Your task to perform on an android device: Open internet settings Image 0: 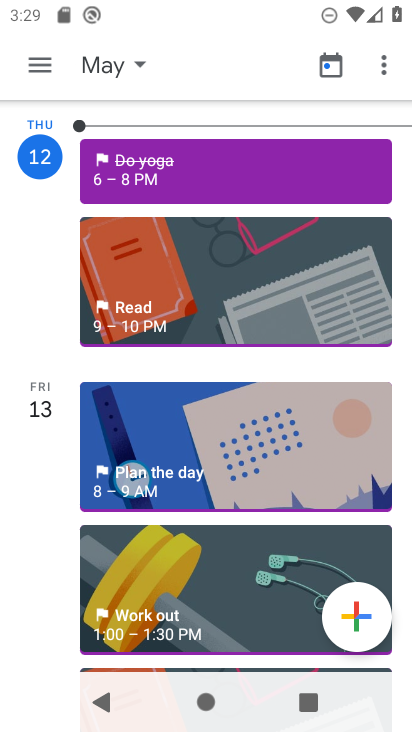
Step 0: press home button
Your task to perform on an android device: Open internet settings Image 1: 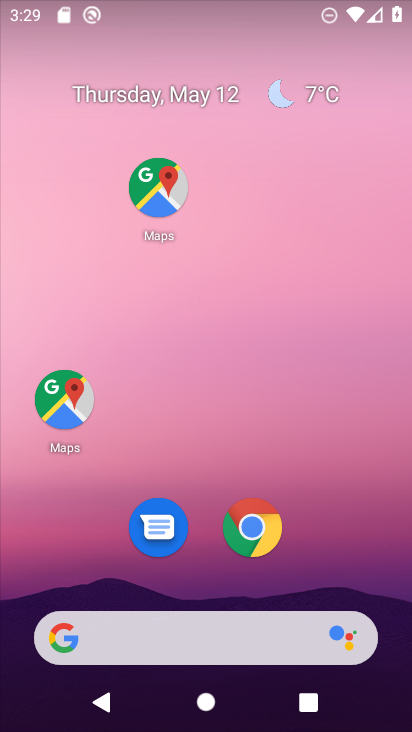
Step 1: drag from (213, 591) to (272, 50)
Your task to perform on an android device: Open internet settings Image 2: 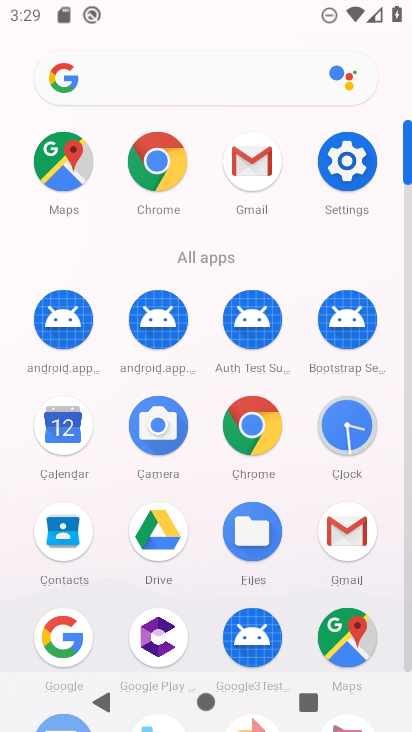
Step 2: click (343, 169)
Your task to perform on an android device: Open internet settings Image 3: 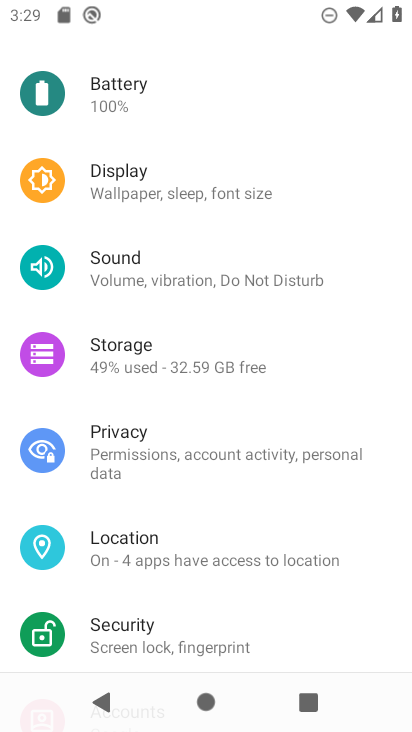
Step 3: drag from (192, 193) to (210, 623)
Your task to perform on an android device: Open internet settings Image 4: 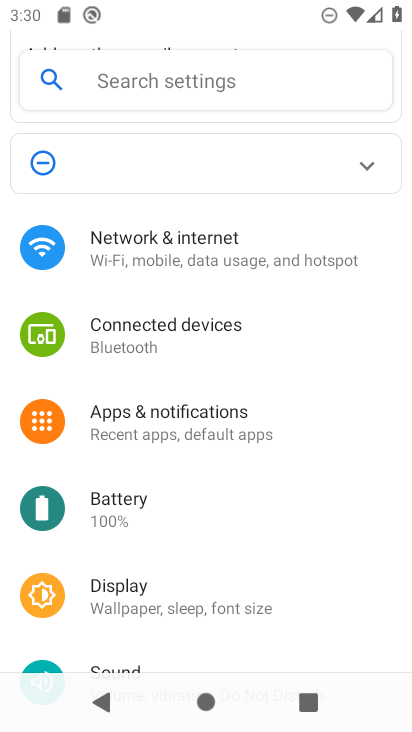
Step 4: click (223, 262)
Your task to perform on an android device: Open internet settings Image 5: 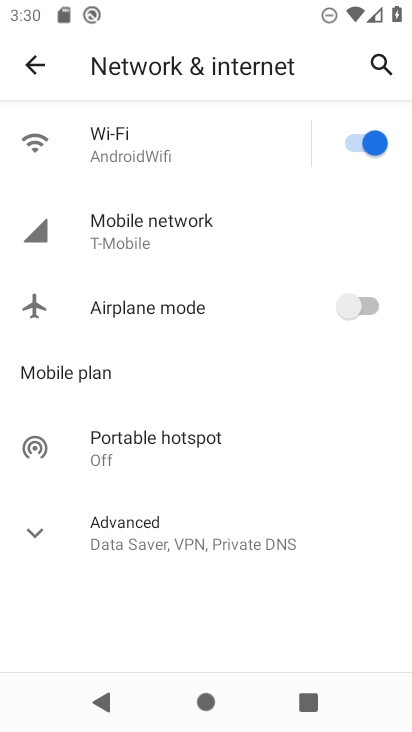
Step 5: click (161, 233)
Your task to perform on an android device: Open internet settings Image 6: 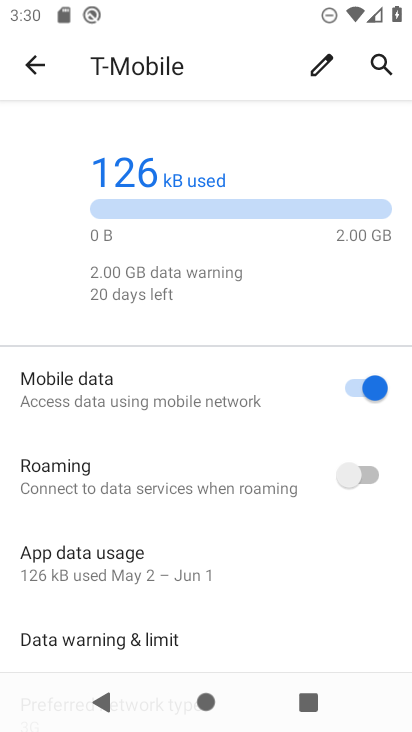
Step 6: task complete